Your task to perform on an android device: turn notification dots off Image 0: 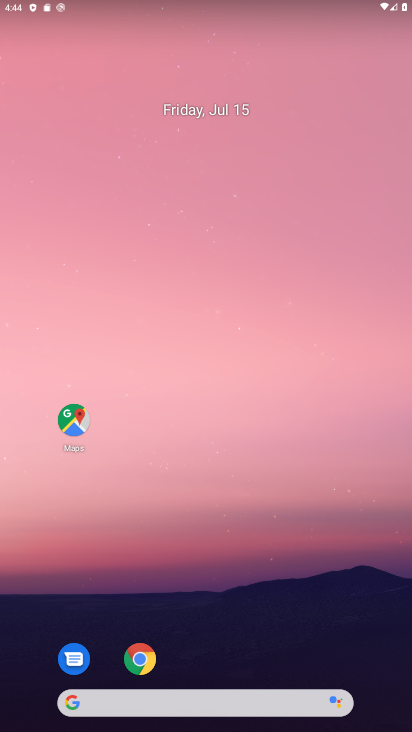
Step 0: drag from (246, 547) to (153, 18)
Your task to perform on an android device: turn notification dots off Image 1: 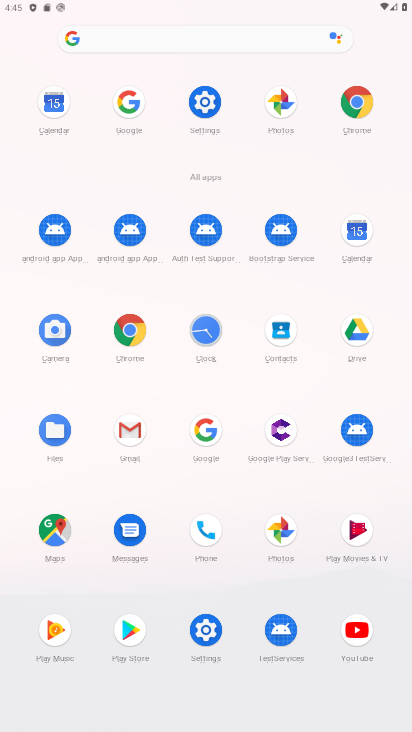
Step 1: click (197, 91)
Your task to perform on an android device: turn notification dots off Image 2: 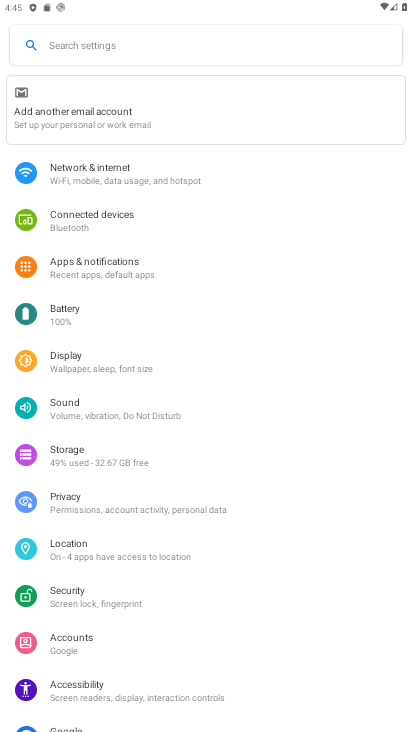
Step 2: click (113, 264)
Your task to perform on an android device: turn notification dots off Image 3: 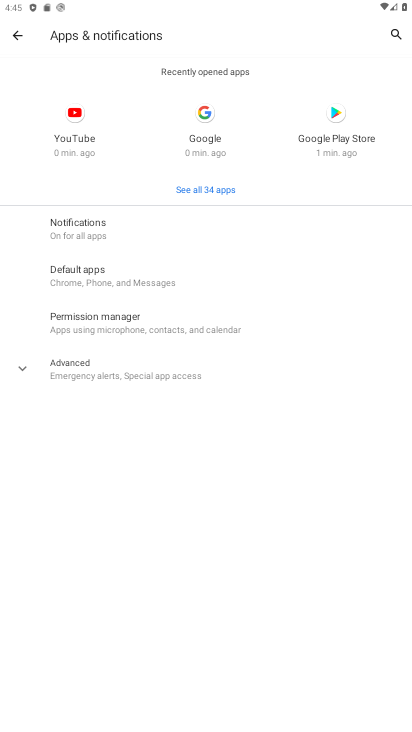
Step 3: click (79, 236)
Your task to perform on an android device: turn notification dots off Image 4: 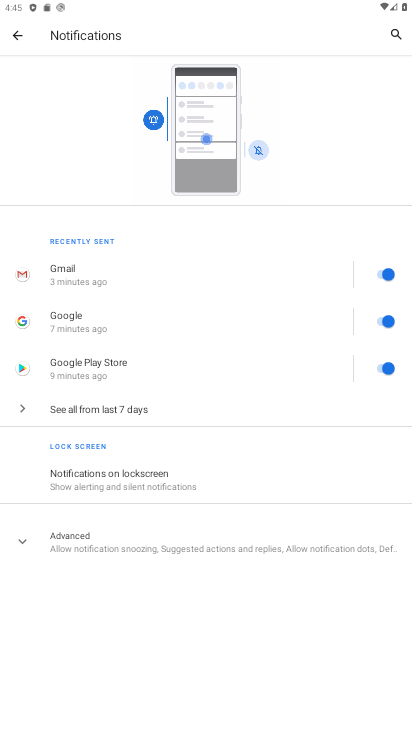
Step 4: click (91, 548)
Your task to perform on an android device: turn notification dots off Image 5: 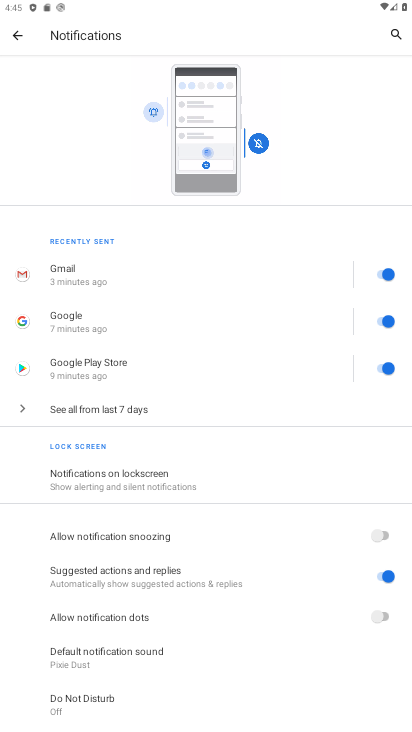
Step 5: task complete